Your task to perform on an android device: delete the emails in spam in the gmail app Image 0: 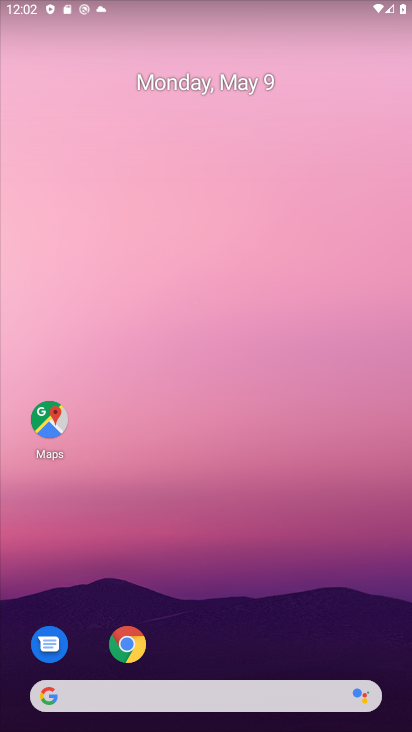
Step 0: drag from (239, 645) to (188, 89)
Your task to perform on an android device: delete the emails in spam in the gmail app Image 1: 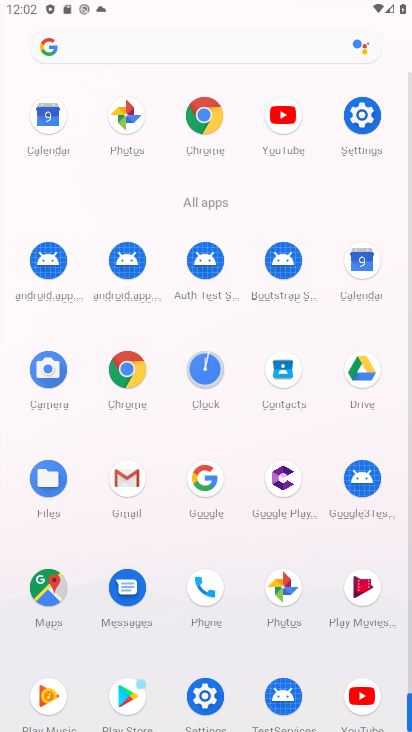
Step 1: click (122, 476)
Your task to perform on an android device: delete the emails in spam in the gmail app Image 2: 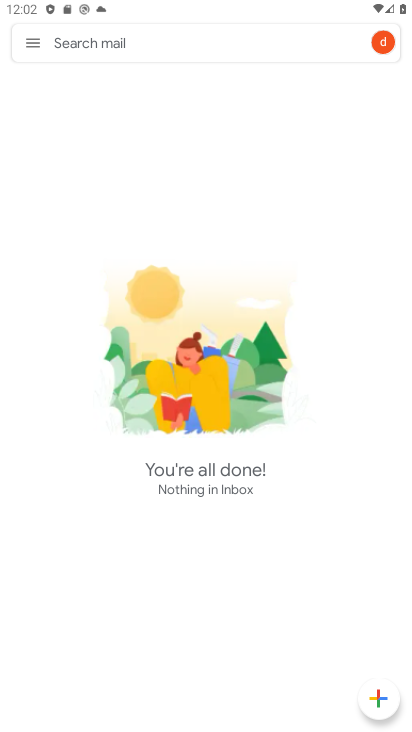
Step 2: click (24, 41)
Your task to perform on an android device: delete the emails in spam in the gmail app Image 3: 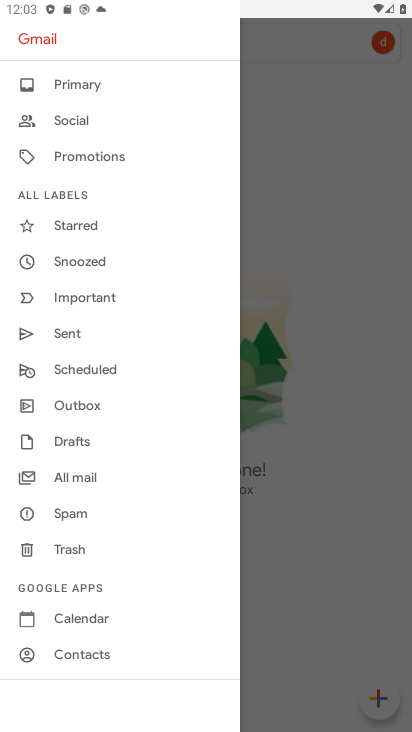
Step 3: click (92, 482)
Your task to perform on an android device: delete the emails in spam in the gmail app Image 4: 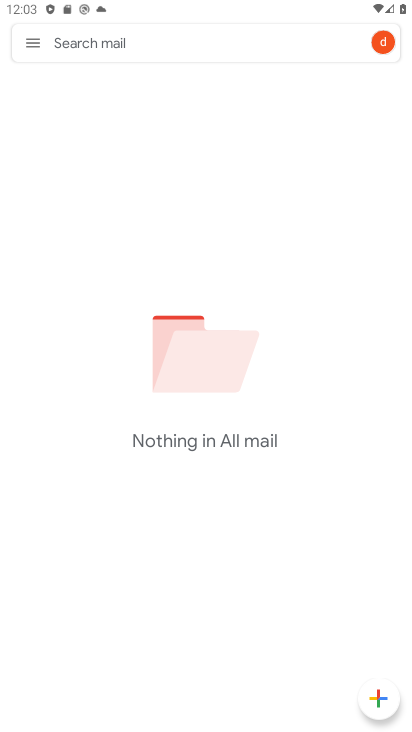
Step 4: click (33, 54)
Your task to perform on an android device: delete the emails in spam in the gmail app Image 5: 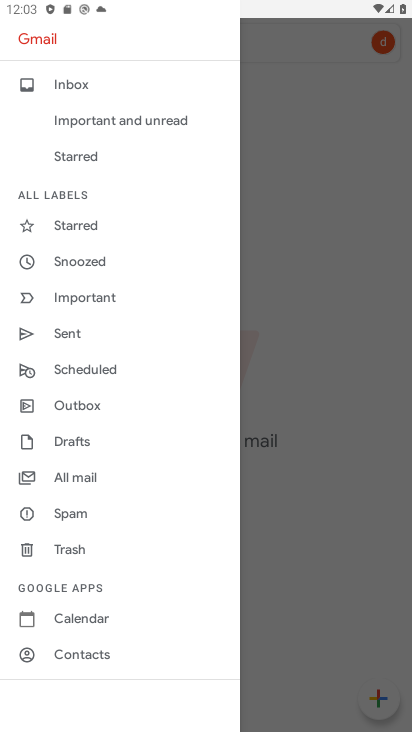
Step 5: click (95, 515)
Your task to perform on an android device: delete the emails in spam in the gmail app Image 6: 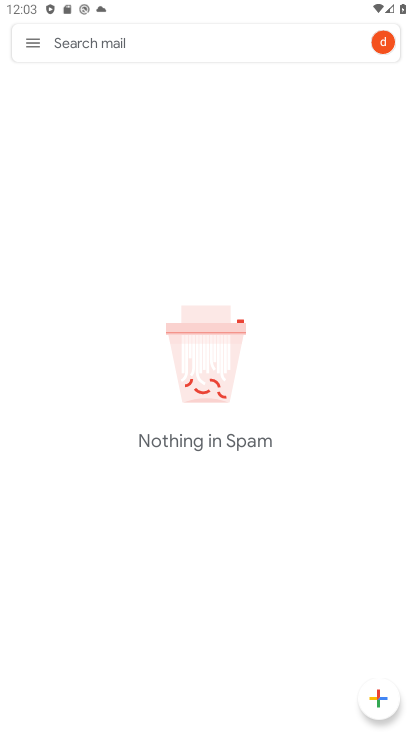
Step 6: task complete